Your task to perform on an android device: Add energizer triple a to the cart on ebay, then select checkout. Image 0: 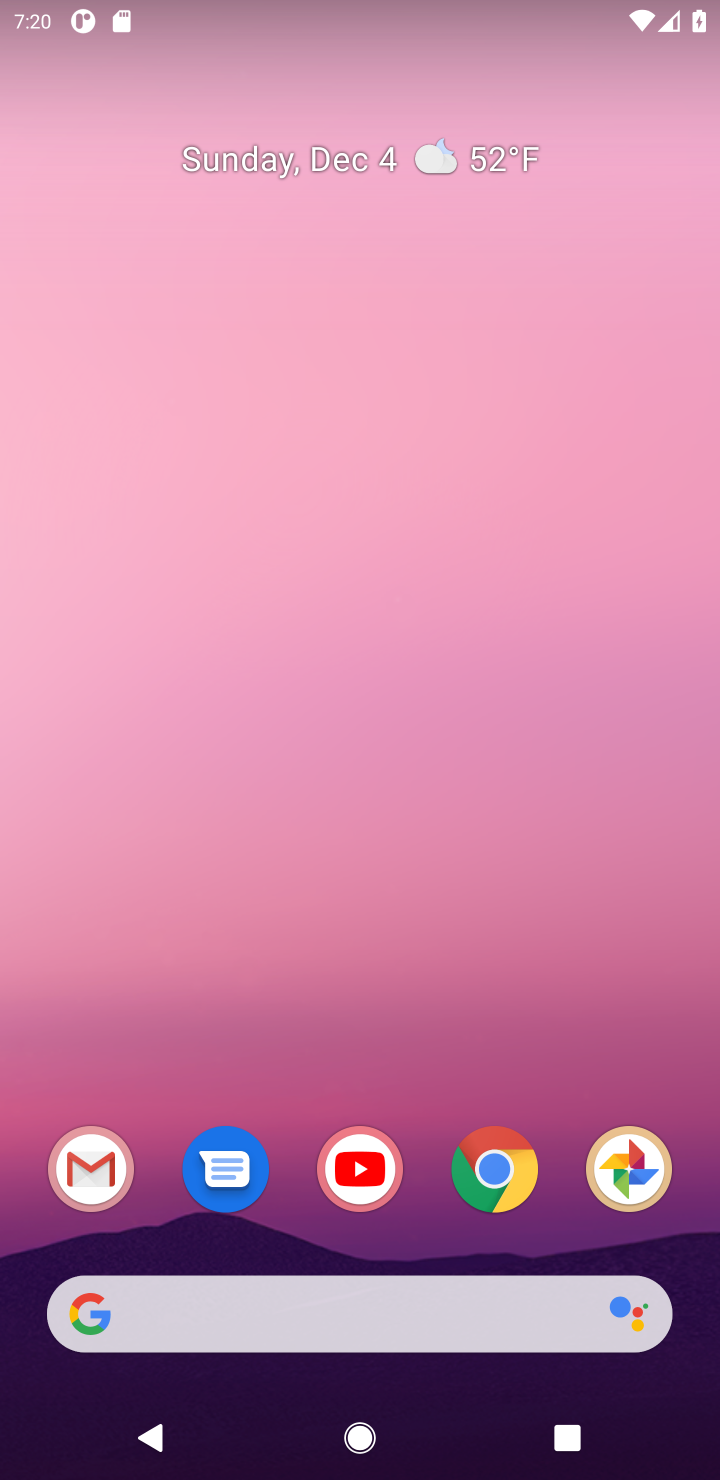
Step 0: click (503, 1168)
Your task to perform on an android device: Add energizer triple a to the cart on ebay, then select checkout. Image 1: 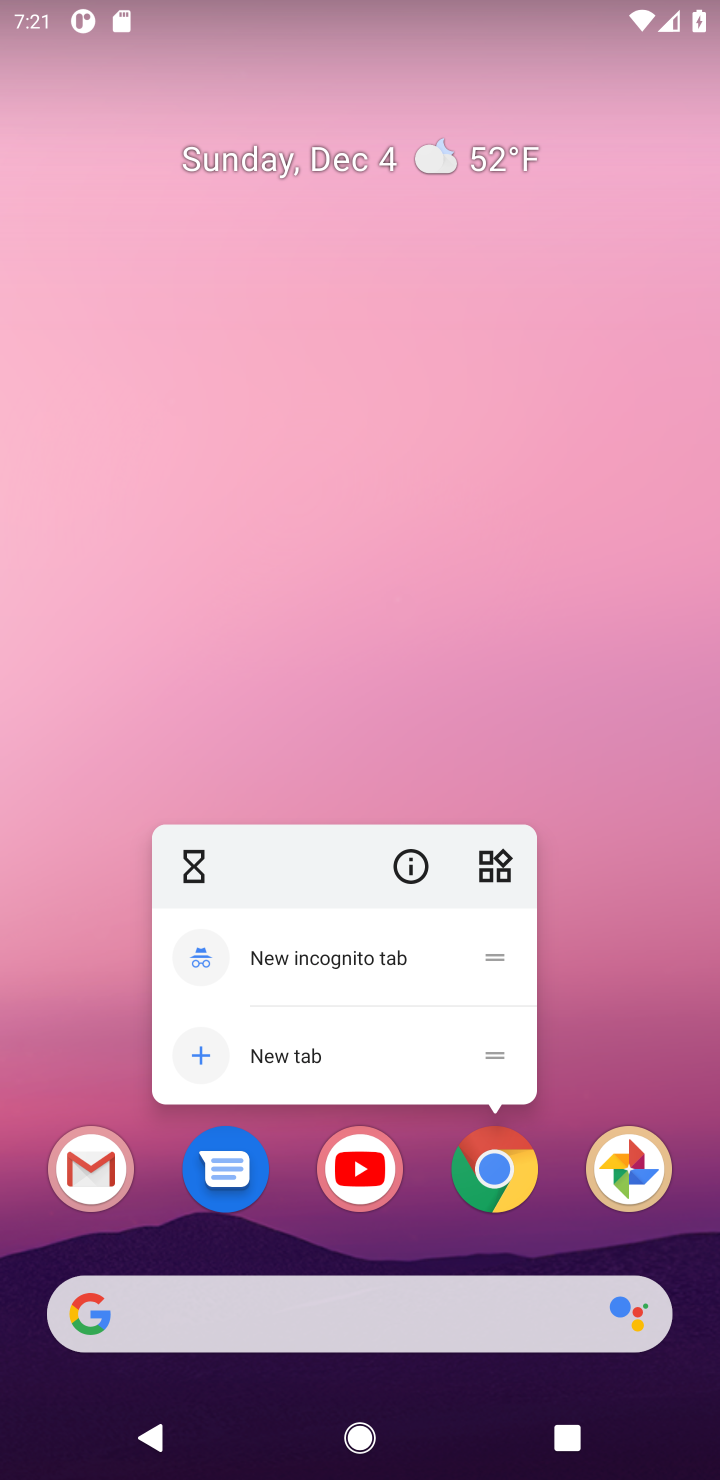
Step 1: click (476, 1177)
Your task to perform on an android device: Add energizer triple a to the cart on ebay, then select checkout. Image 2: 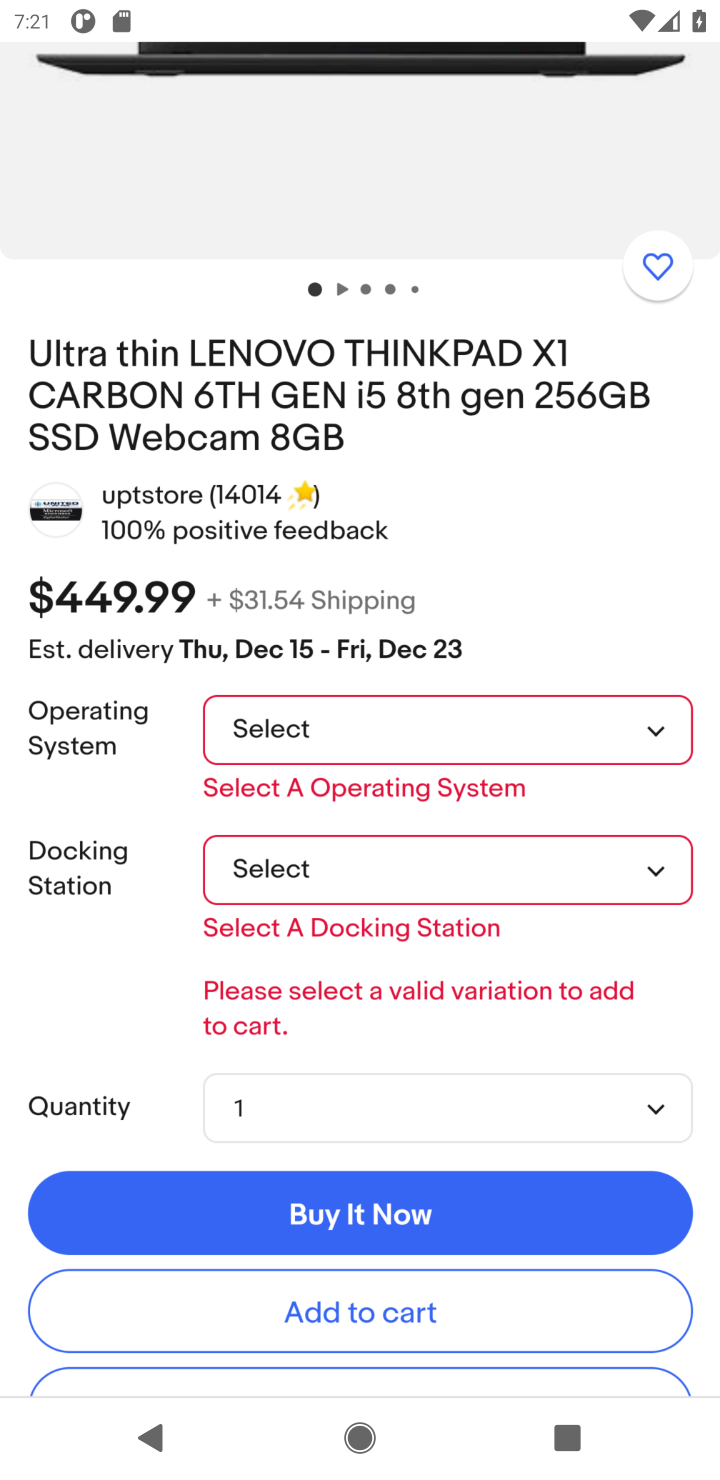
Step 2: click (476, 1177)
Your task to perform on an android device: Add energizer triple a to the cart on ebay, then select checkout. Image 3: 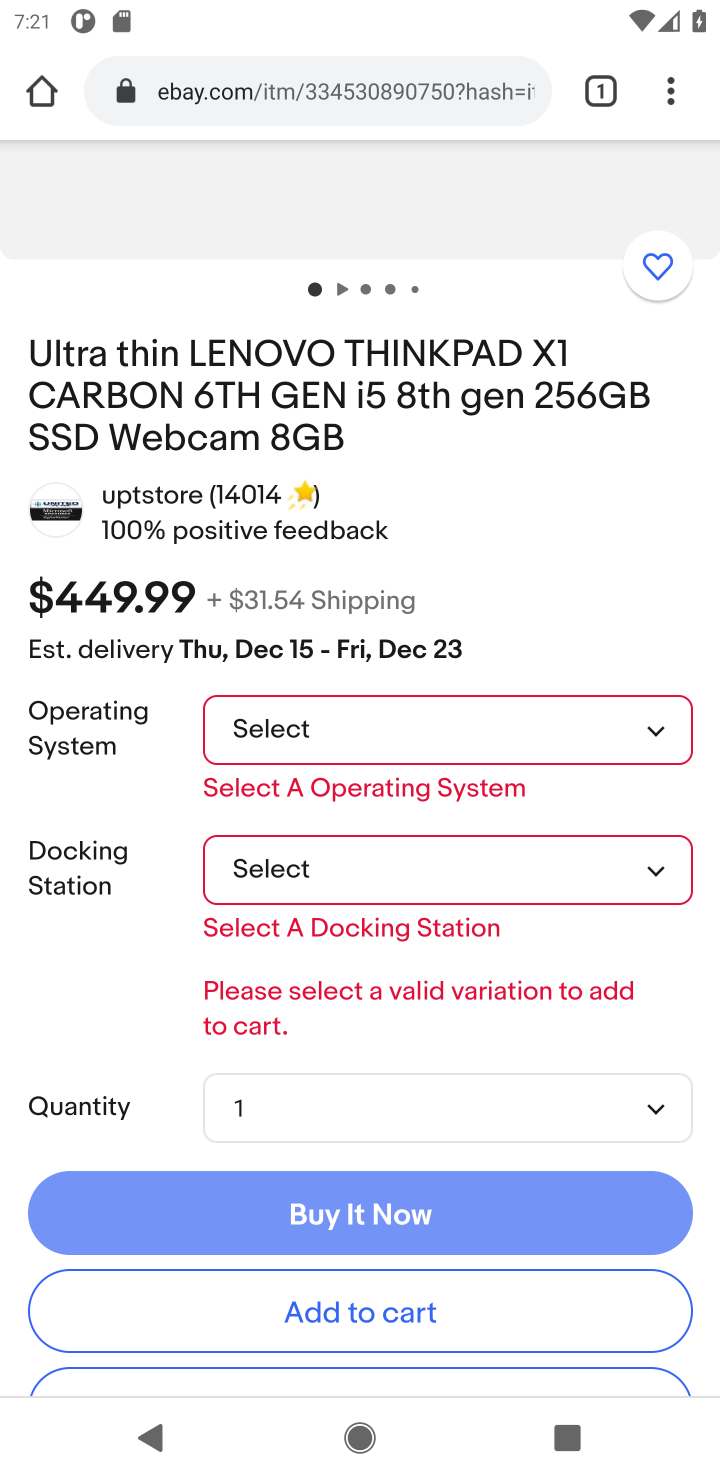
Step 3: click (221, 75)
Your task to perform on an android device: Add energizer triple a to the cart on ebay, then select checkout. Image 4: 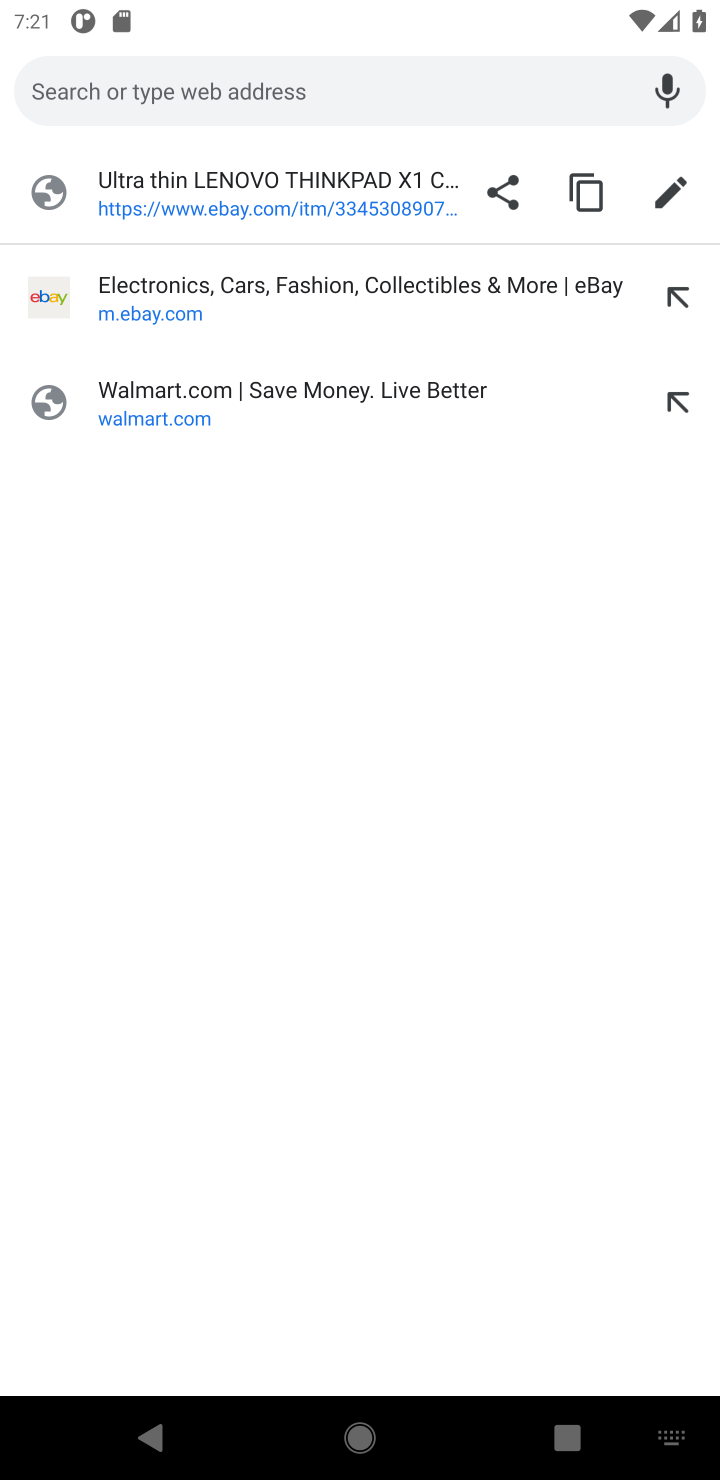
Step 4: click (126, 289)
Your task to perform on an android device: Add energizer triple a to the cart on ebay, then select checkout. Image 5: 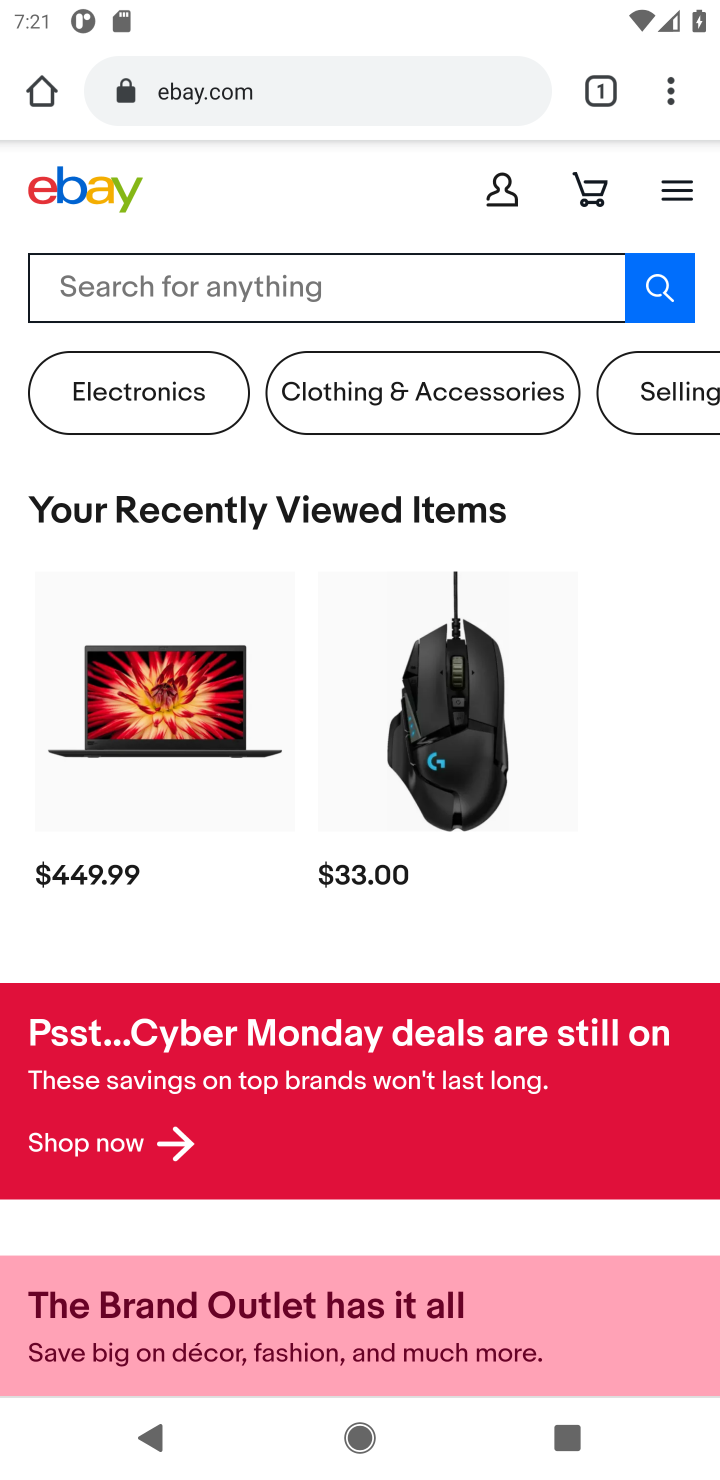
Step 5: click (489, 289)
Your task to perform on an android device: Add energizer triple a to the cart on ebay, then select checkout. Image 6: 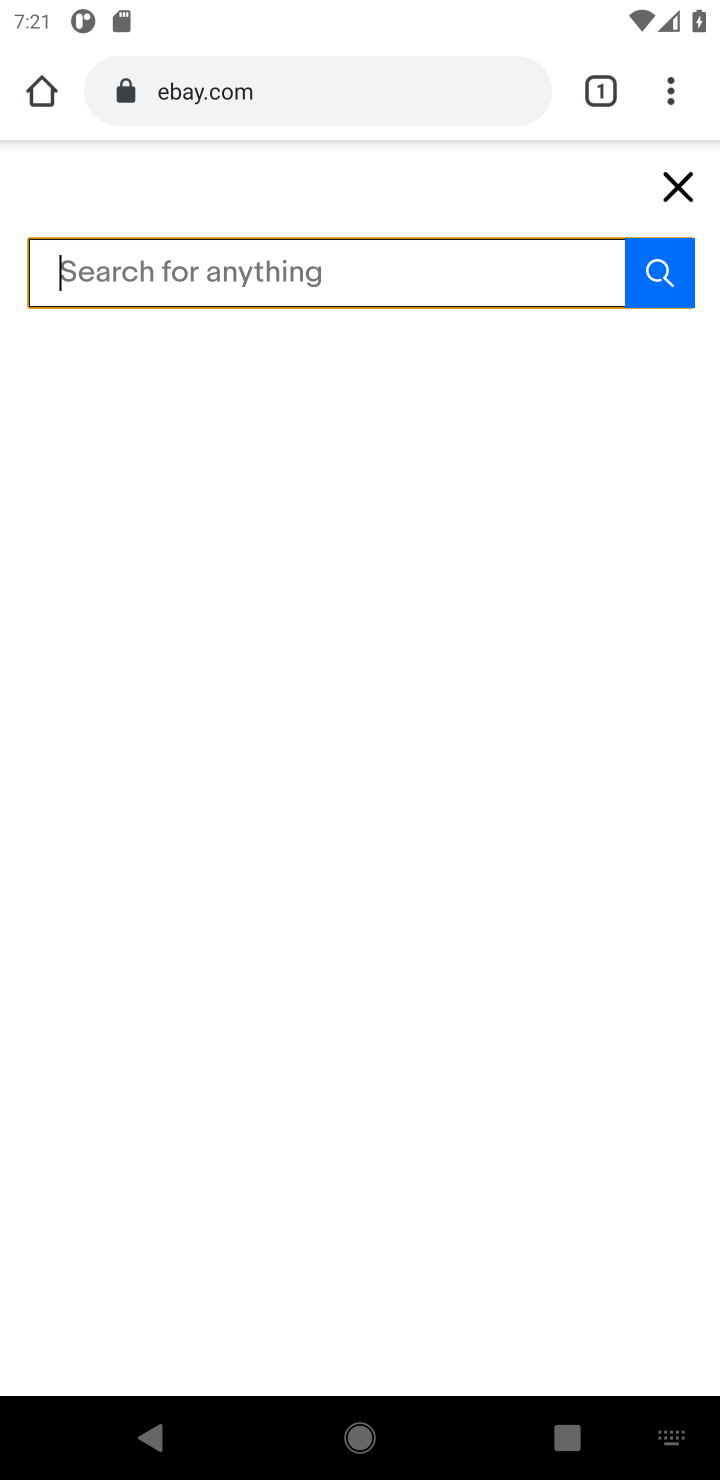
Step 6: type "energizer triple a"
Your task to perform on an android device: Add energizer triple a to the cart on ebay, then select checkout. Image 7: 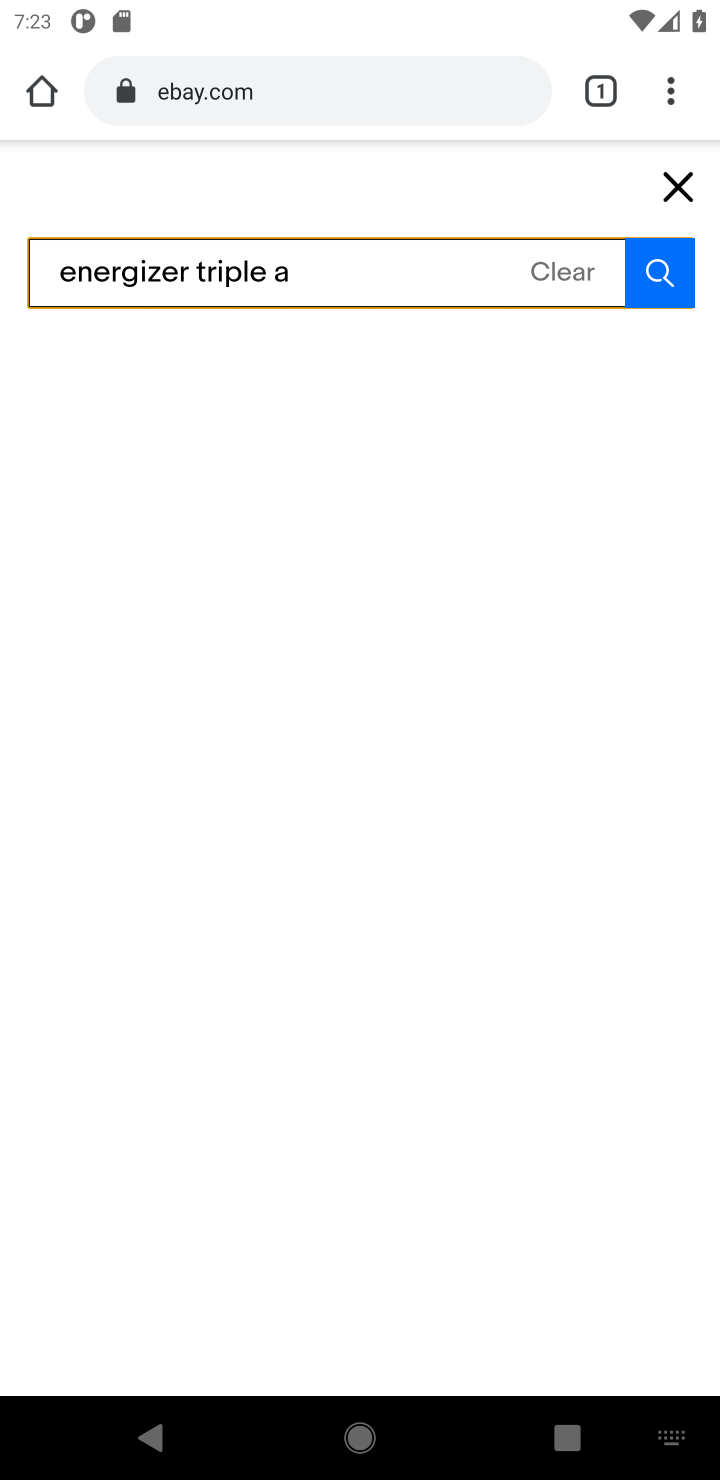
Step 7: click (665, 281)
Your task to perform on an android device: Add energizer triple a to the cart on ebay, then select checkout. Image 8: 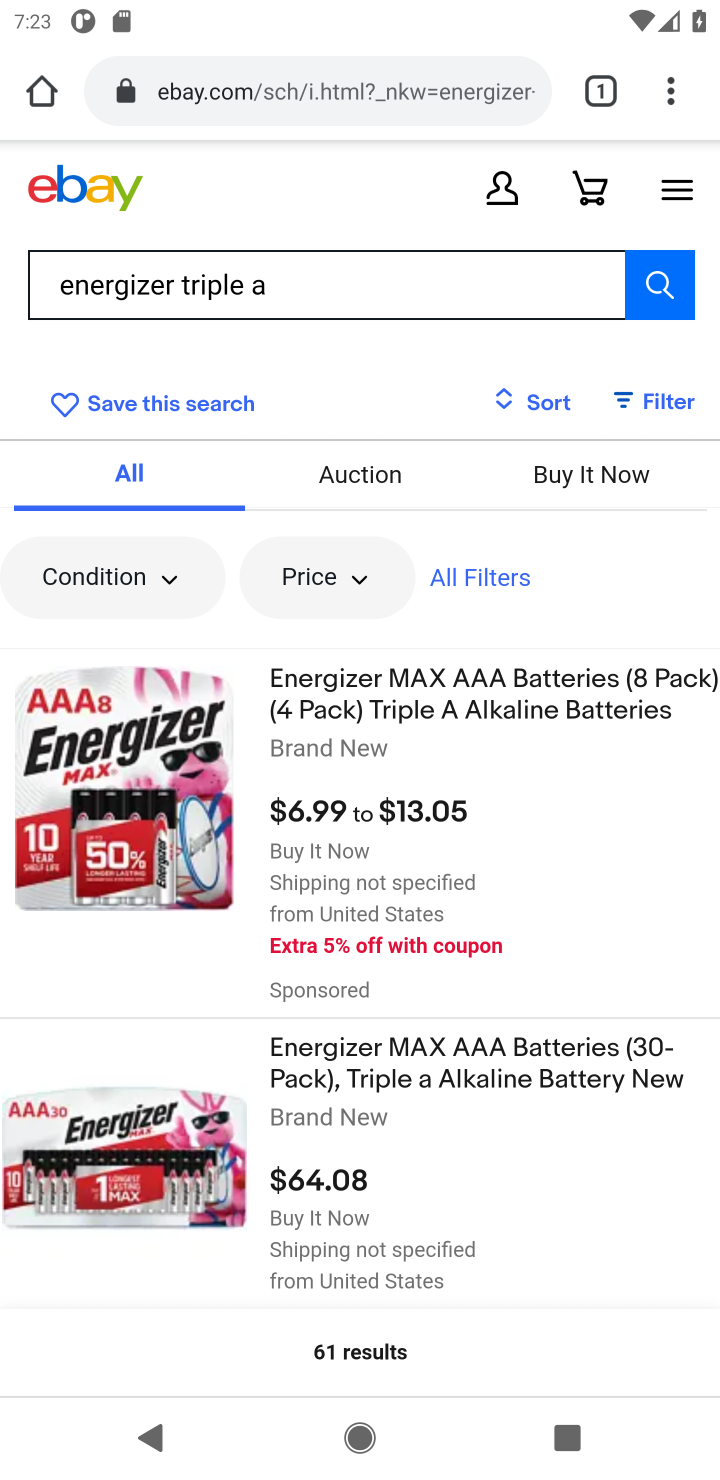
Step 8: click (100, 792)
Your task to perform on an android device: Add energizer triple a to the cart on ebay, then select checkout. Image 9: 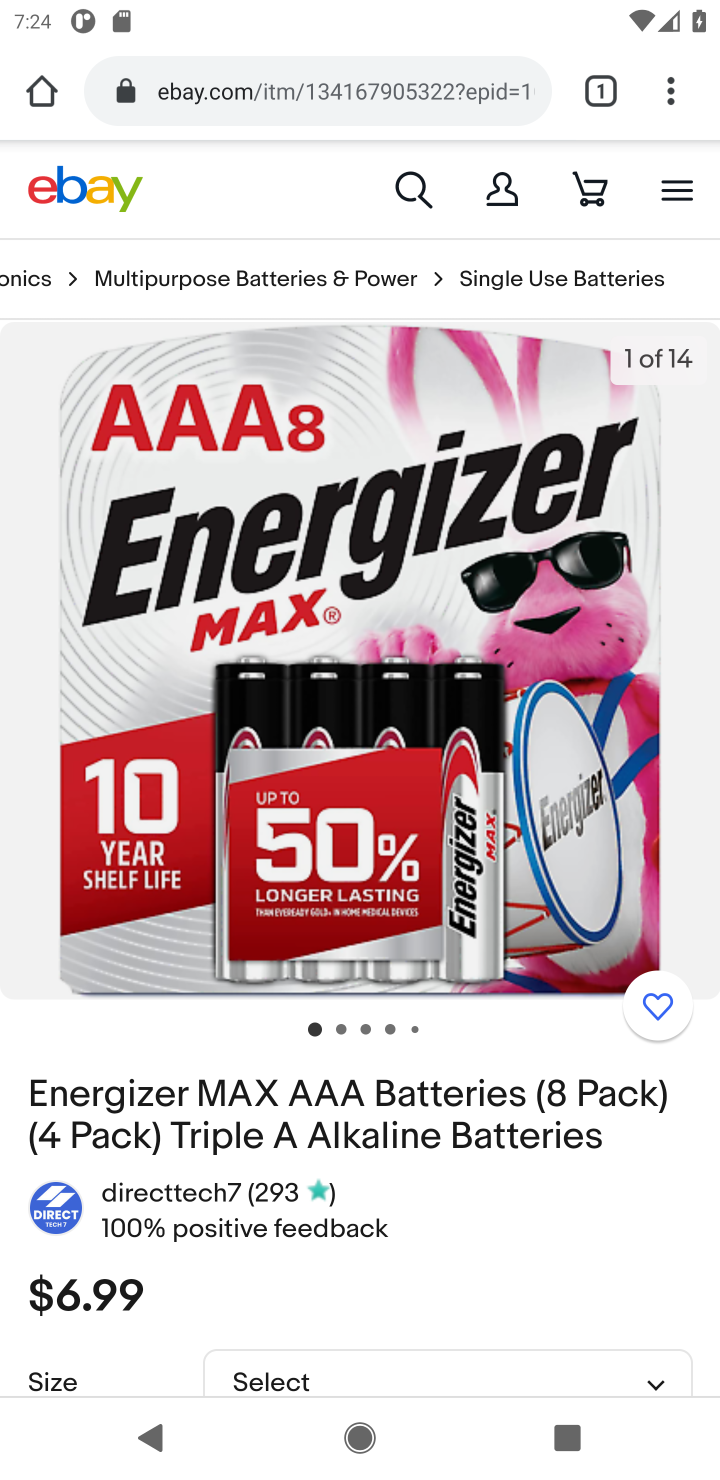
Step 9: drag from (427, 1209) to (433, 427)
Your task to perform on an android device: Add energizer triple a to the cart on ebay, then select checkout. Image 10: 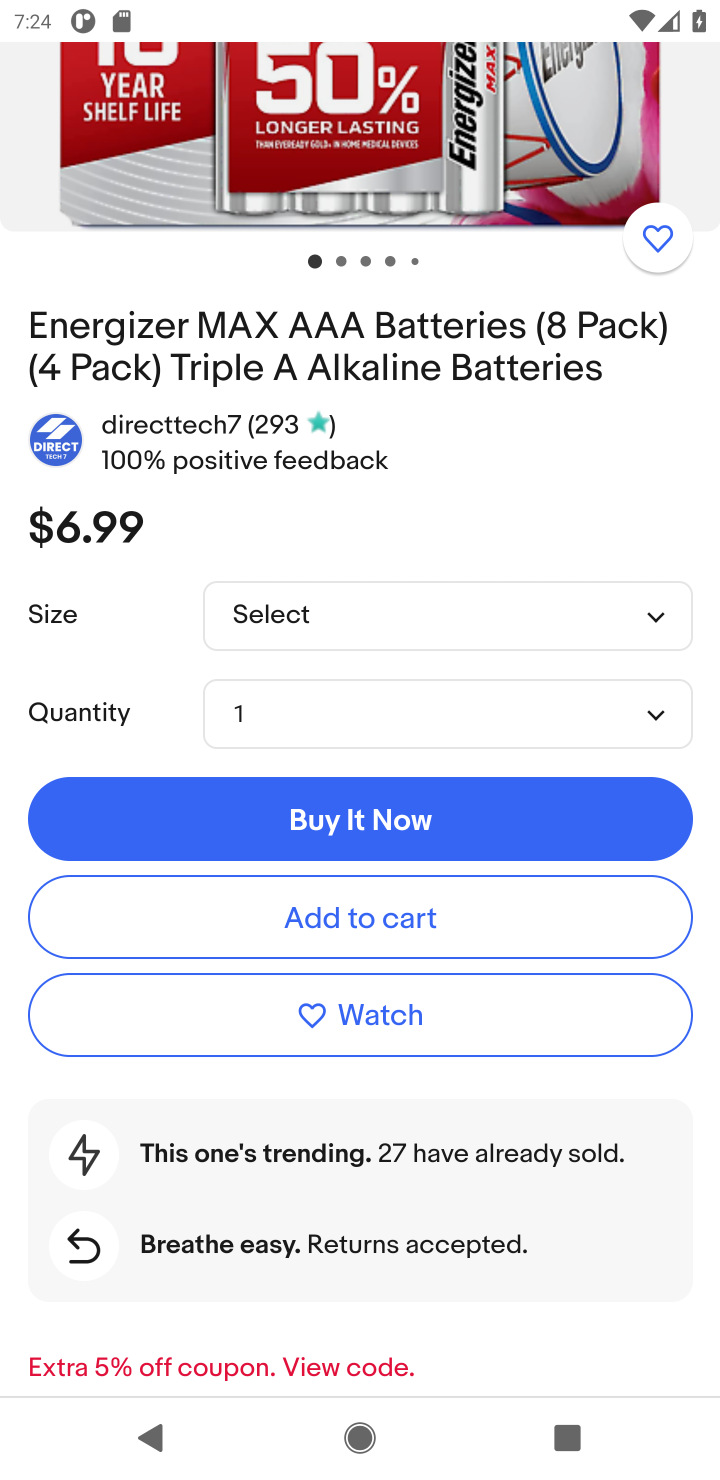
Step 10: click (363, 922)
Your task to perform on an android device: Add energizer triple a to the cart on ebay, then select checkout. Image 11: 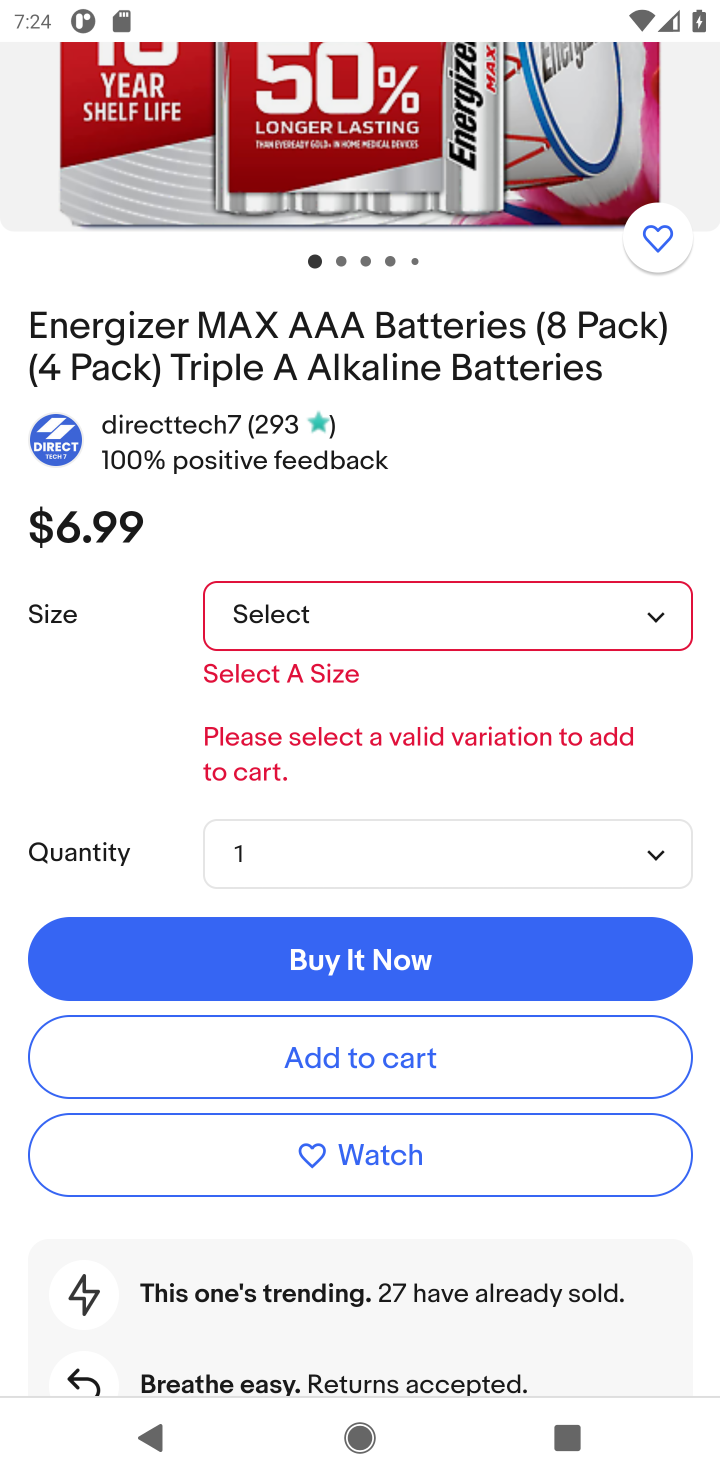
Step 11: click (608, 628)
Your task to perform on an android device: Add energizer triple a to the cart on ebay, then select checkout. Image 12: 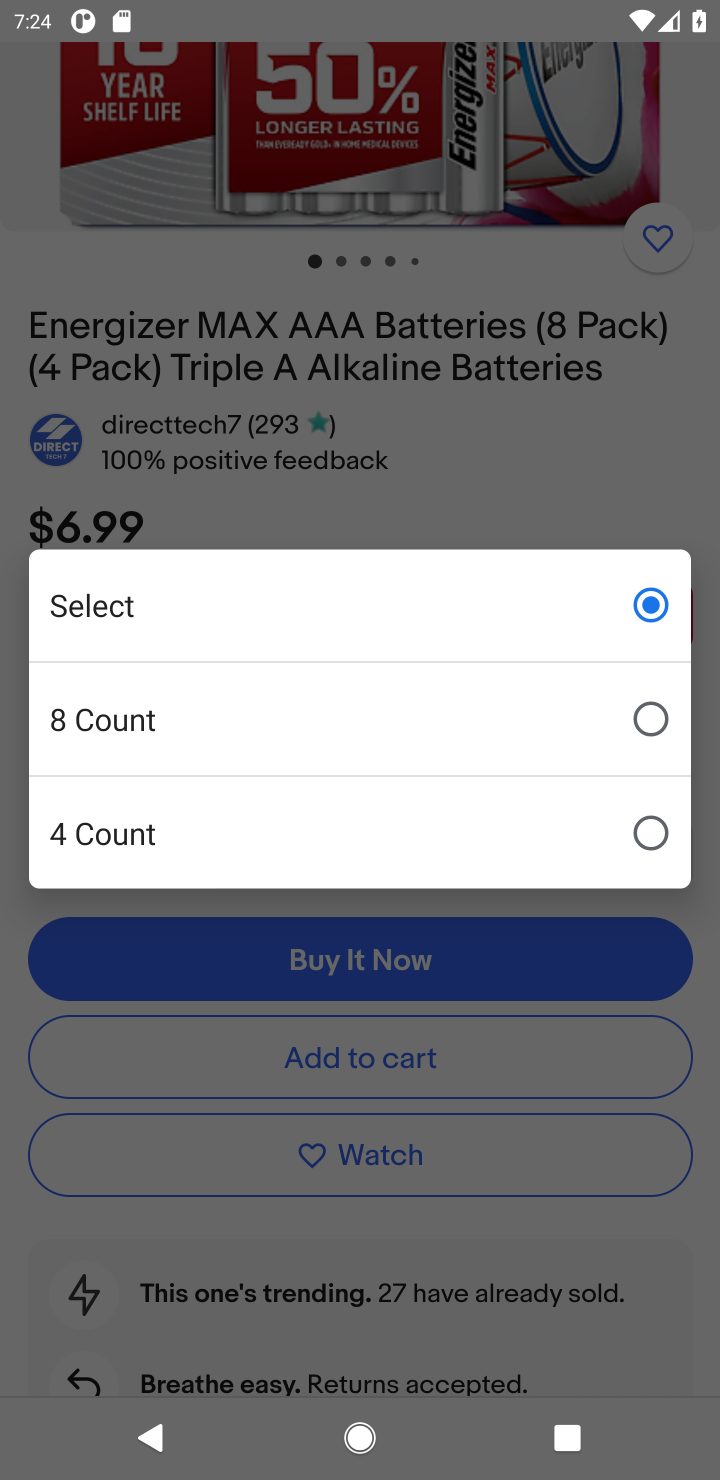
Step 12: click (215, 834)
Your task to perform on an android device: Add energizer triple a to the cart on ebay, then select checkout. Image 13: 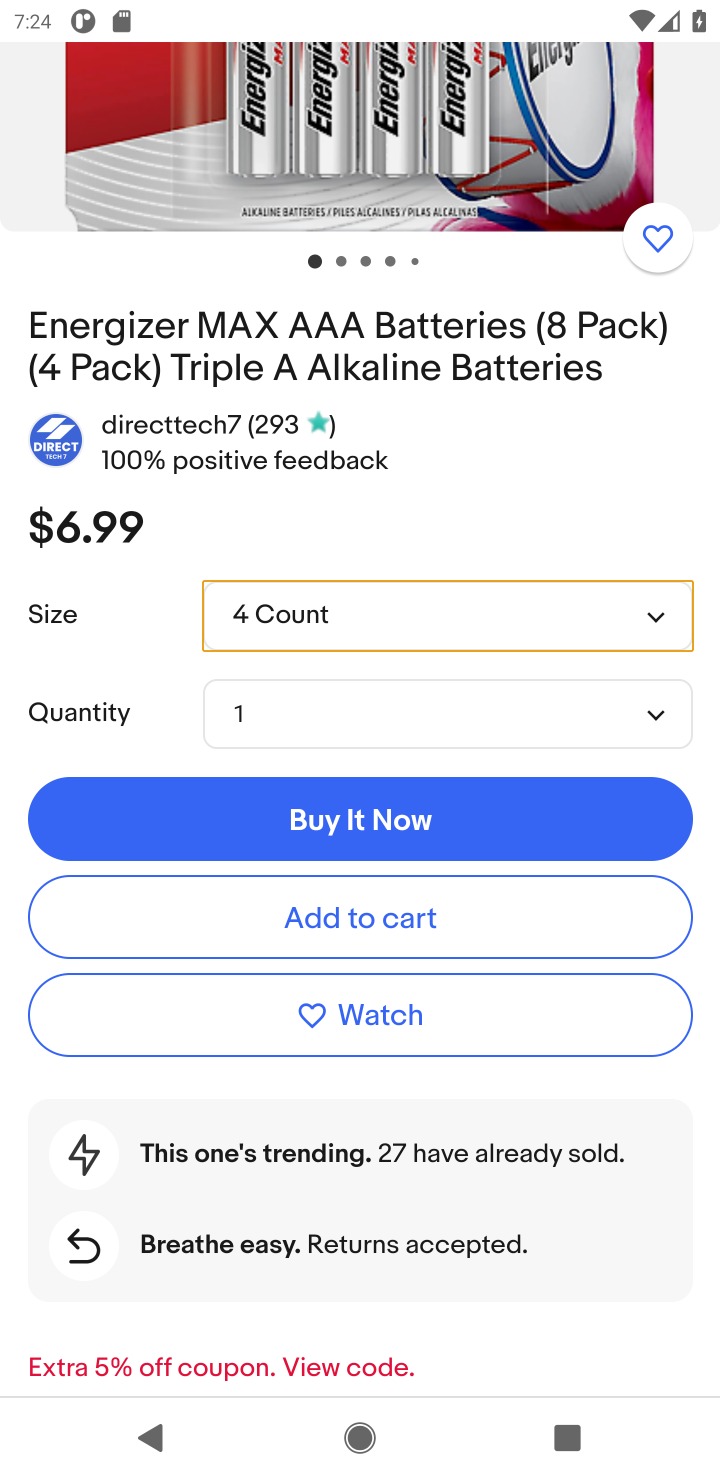
Step 13: click (329, 922)
Your task to perform on an android device: Add energizer triple a to the cart on ebay, then select checkout. Image 14: 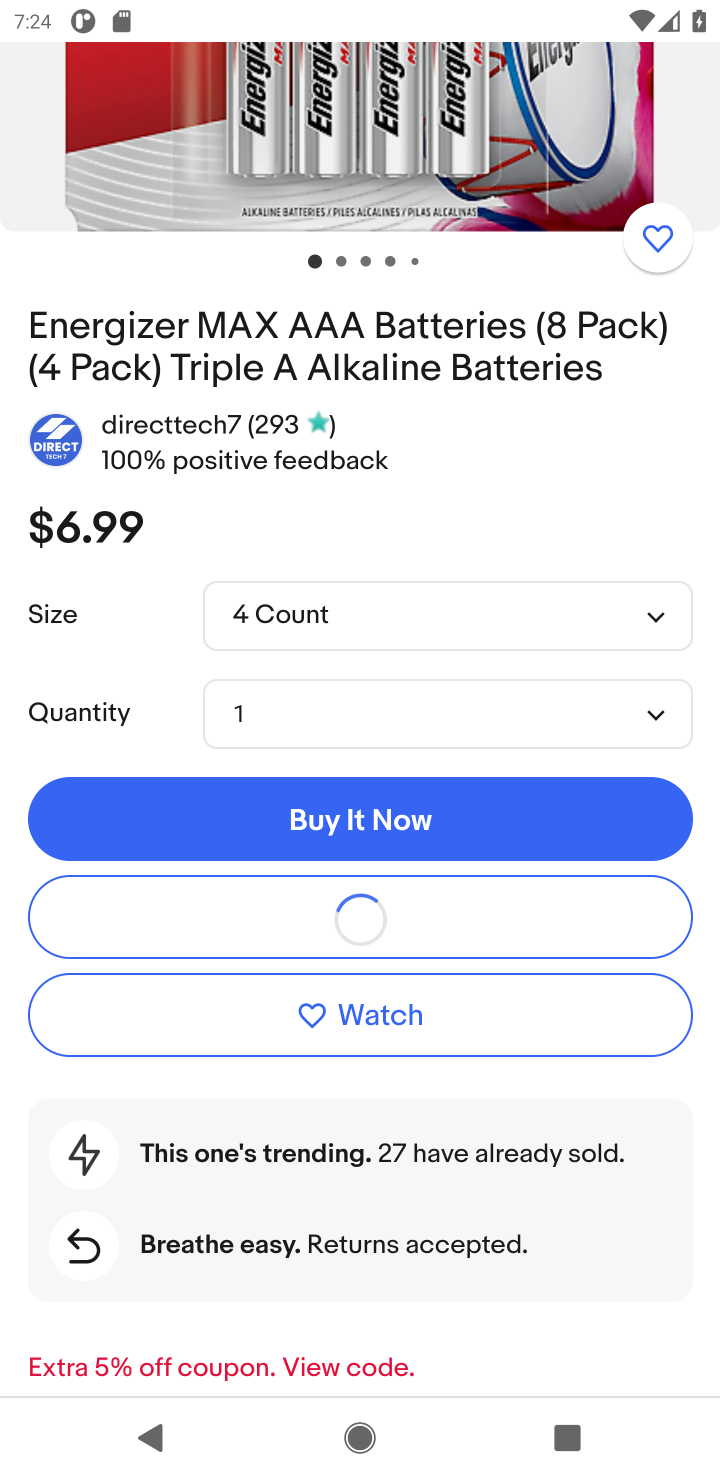
Step 14: task complete